Your task to perform on an android device: turn pop-ups on in chrome Image 0: 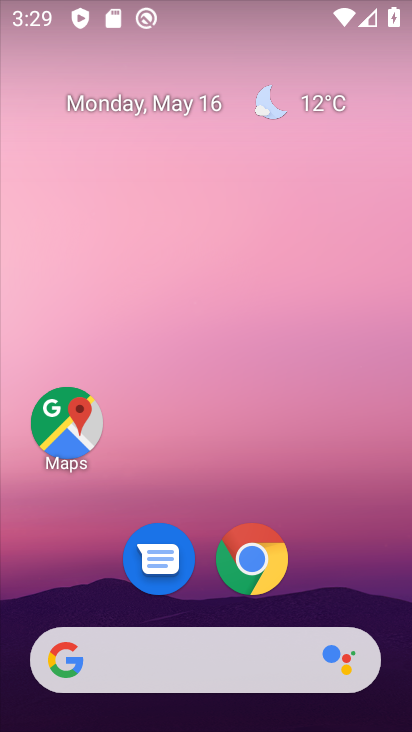
Step 0: click (262, 553)
Your task to perform on an android device: turn pop-ups on in chrome Image 1: 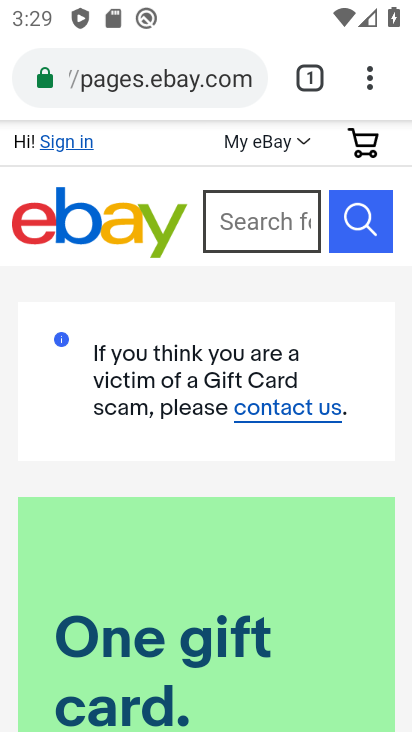
Step 1: click (378, 89)
Your task to perform on an android device: turn pop-ups on in chrome Image 2: 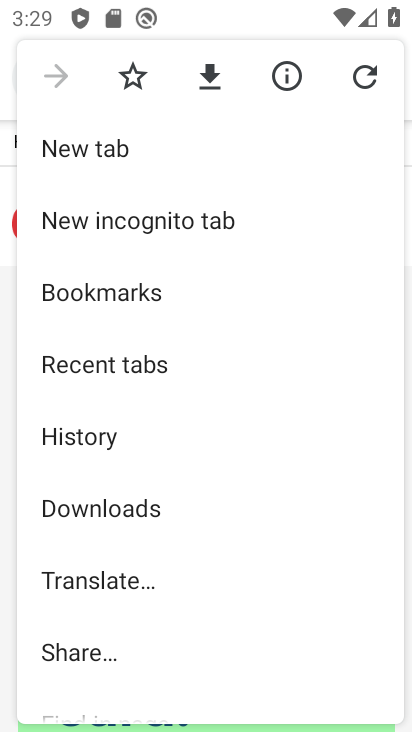
Step 2: drag from (211, 565) to (191, 261)
Your task to perform on an android device: turn pop-ups on in chrome Image 3: 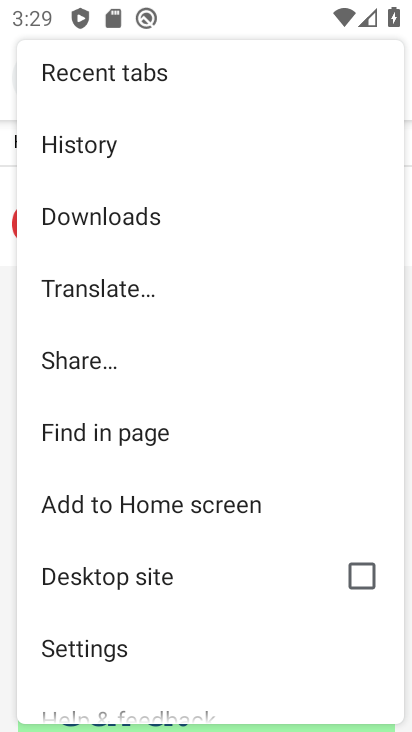
Step 3: click (123, 637)
Your task to perform on an android device: turn pop-ups on in chrome Image 4: 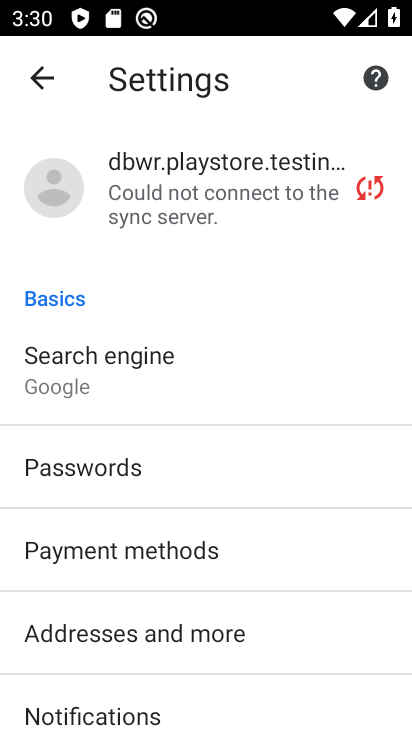
Step 4: drag from (183, 610) to (201, 216)
Your task to perform on an android device: turn pop-ups on in chrome Image 5: 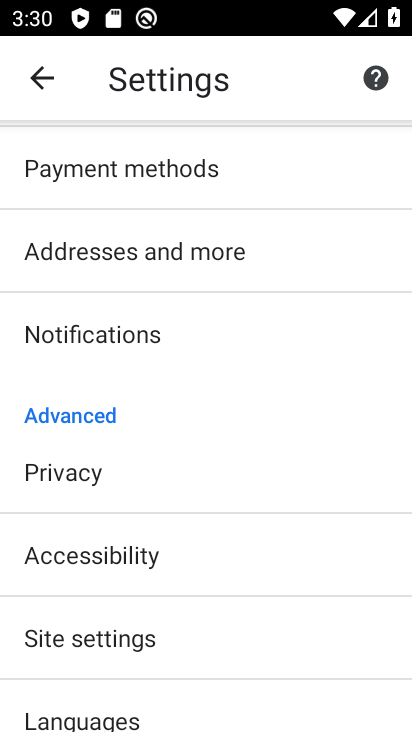
Step 5: drag from (169, 616) to (175, 460)
Your task to perform on an android device: turn pop-ups on in chrome Image 6: 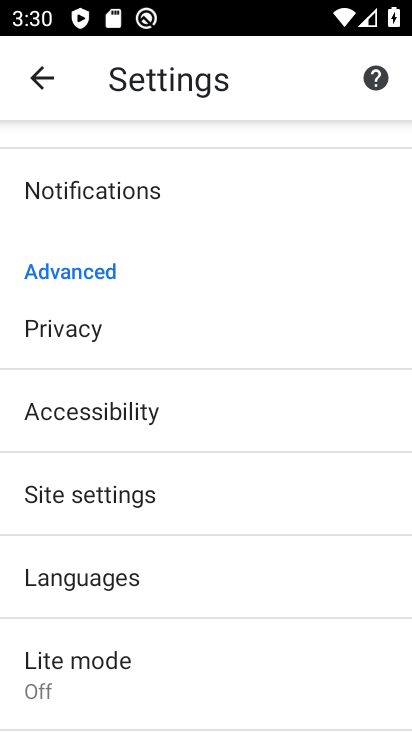
Step 6: click (193, 512)
Your task to perform on an android device: turn pop-ups on in chrome Image 7: 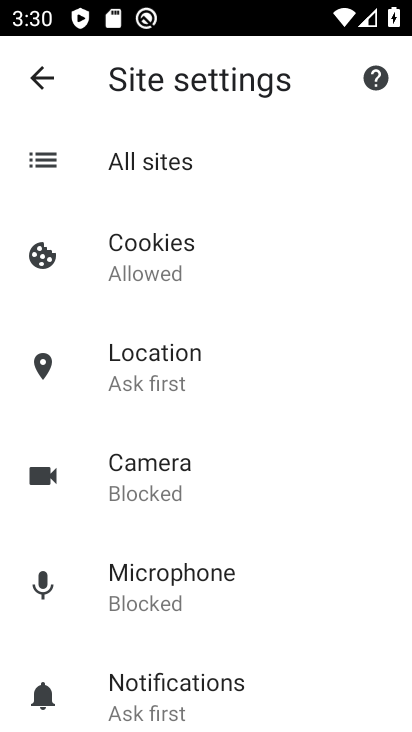
Step 7: drag from (193, 512) to (119, 160)
Your task to perform on an android device: turn pop-ups on in chrome Image 8: 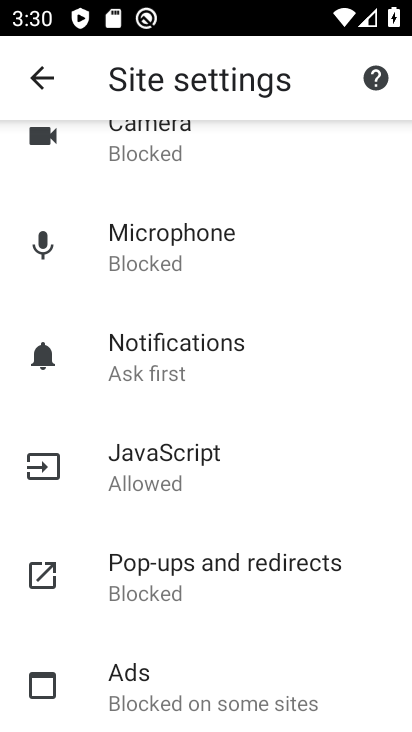
Step 8: drag from (186, 606) to (202, 392)
Your task to perform on an android device: turn pop-ups on in chrome Image 9: 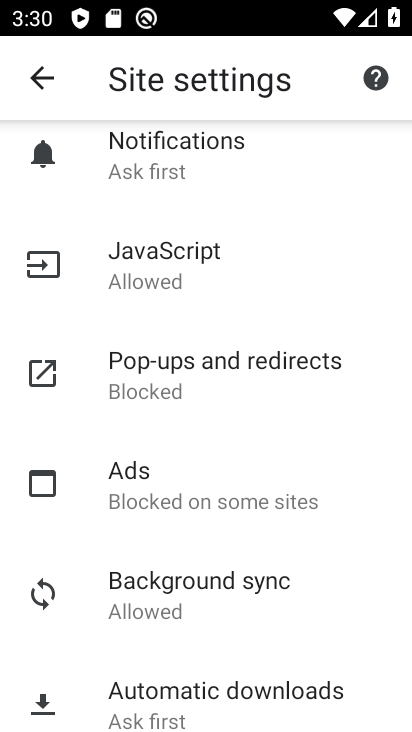
Step 9: click (214, 397)
Your task to perform on an android device: turn pop-ups on in chrome Image 10: 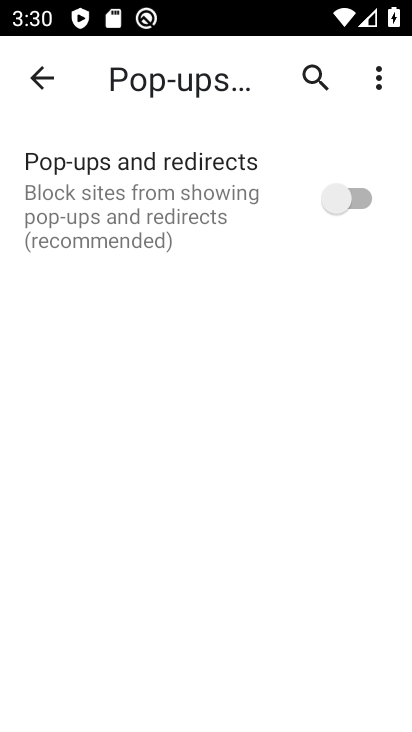
Step 10: click (346, 219)
Your task to perform on an android device: turn pop-ups on in chrome Image 11: 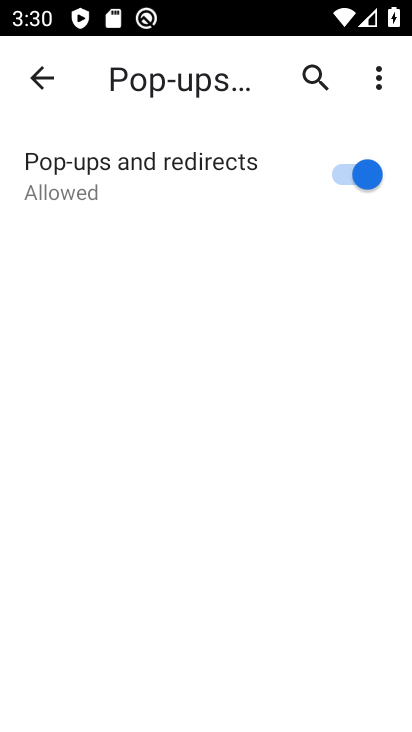
Step 11: task complete